Your task to perform on an android device: show emergency info Image 0: 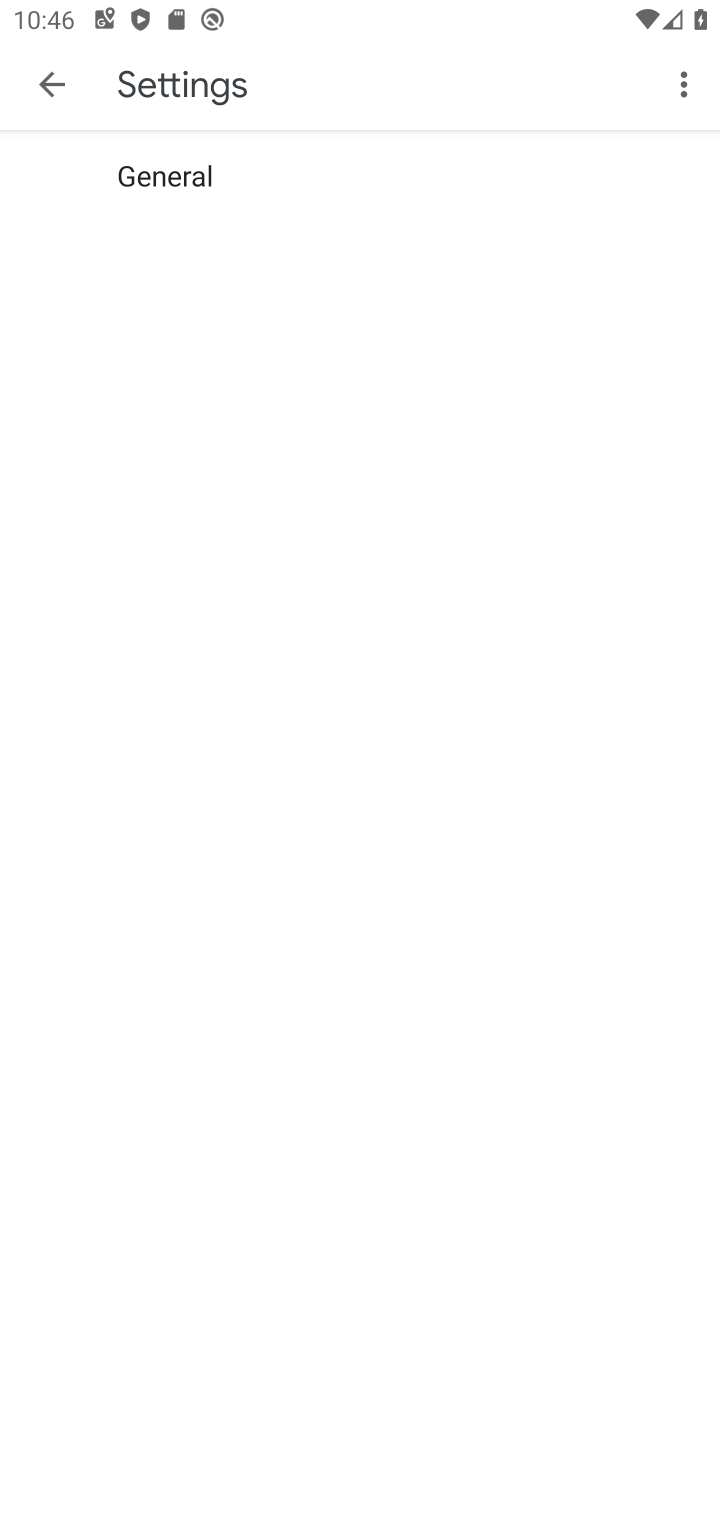
Step 0: press back button
Your task to perform on an android device: show emergency info Image 1: 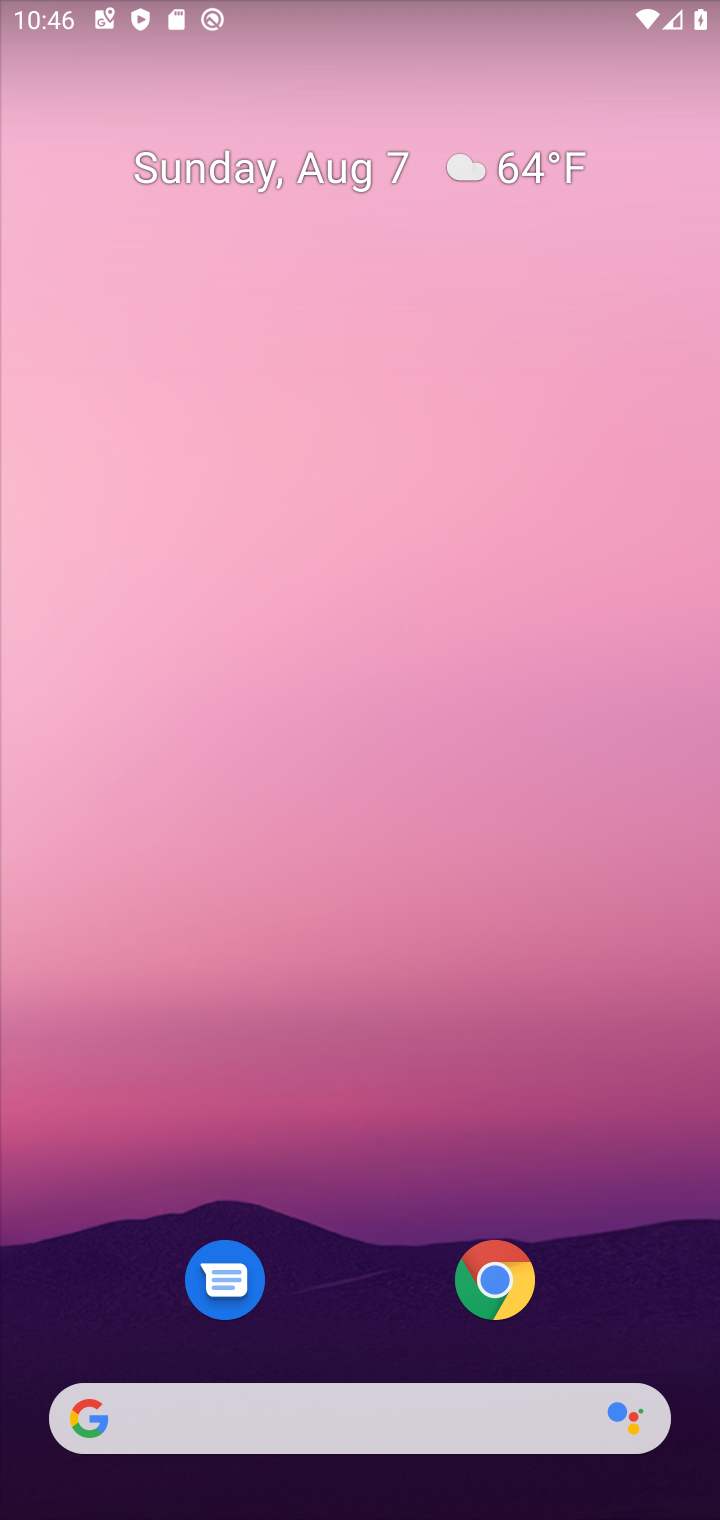
Step 1: drag from (382, 1288) to (597, 87)
Your task to perform on an android device: show emergency info Image 2: 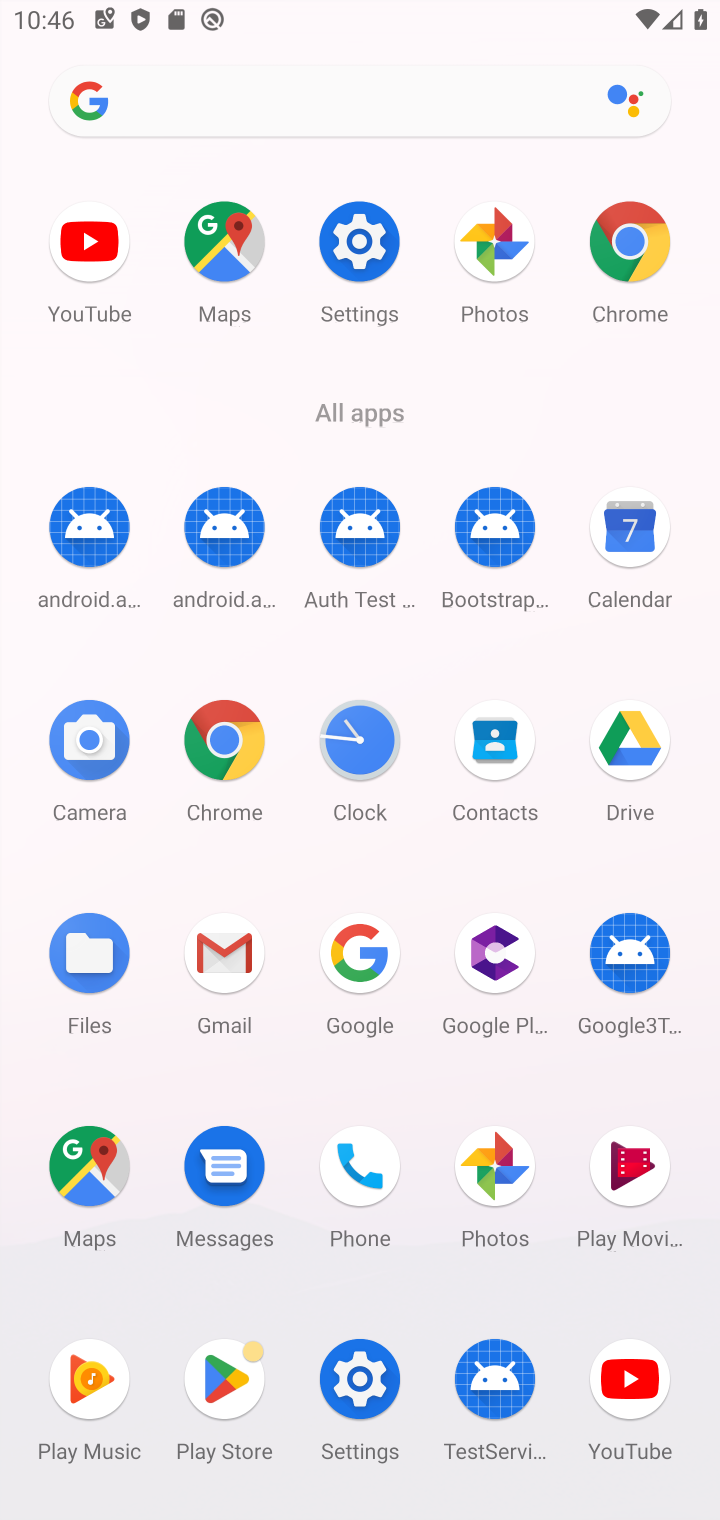
Step 2: click (361, 241)
Your task to perform on an android device: show emergency info Image 3: 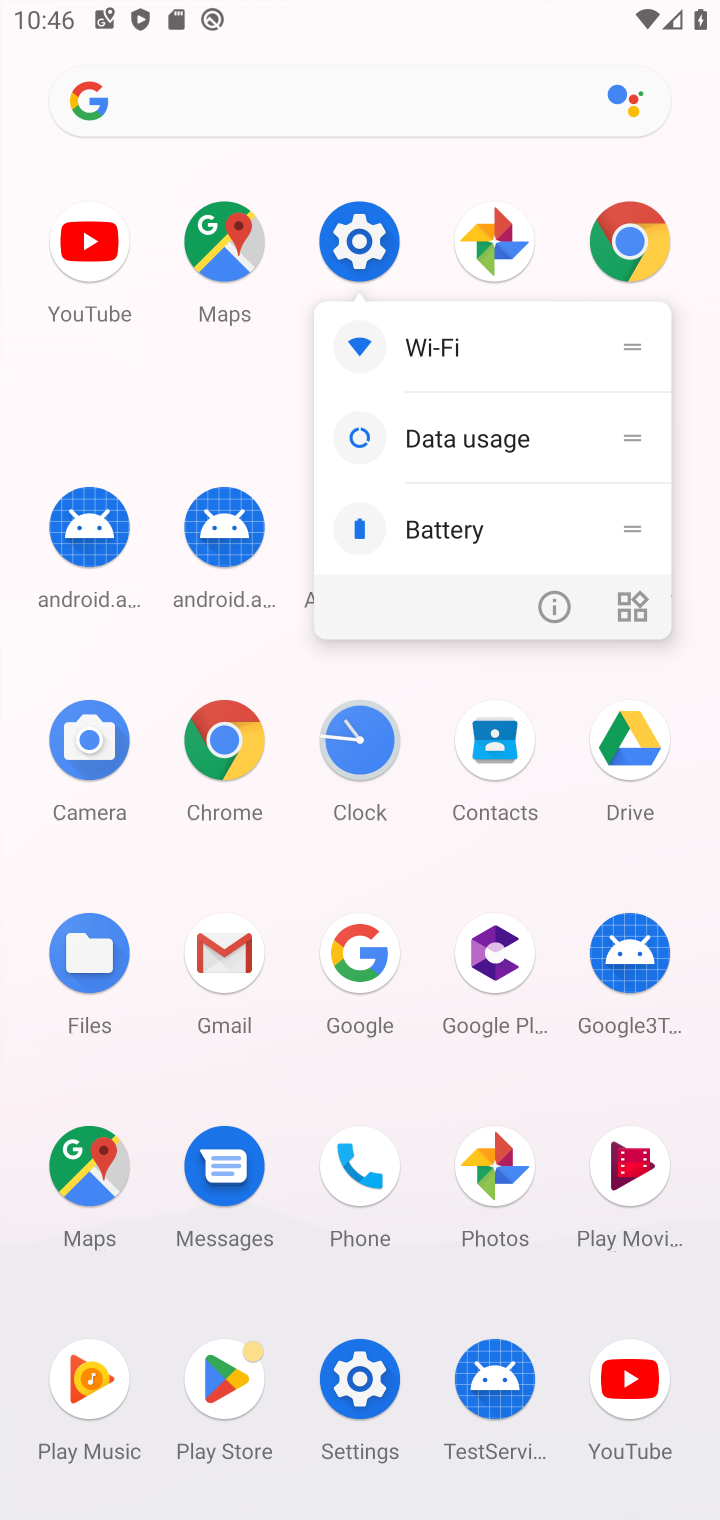
Step 3: click (380, 235)
Your task to perform on an android device: show emergency info Image 4: 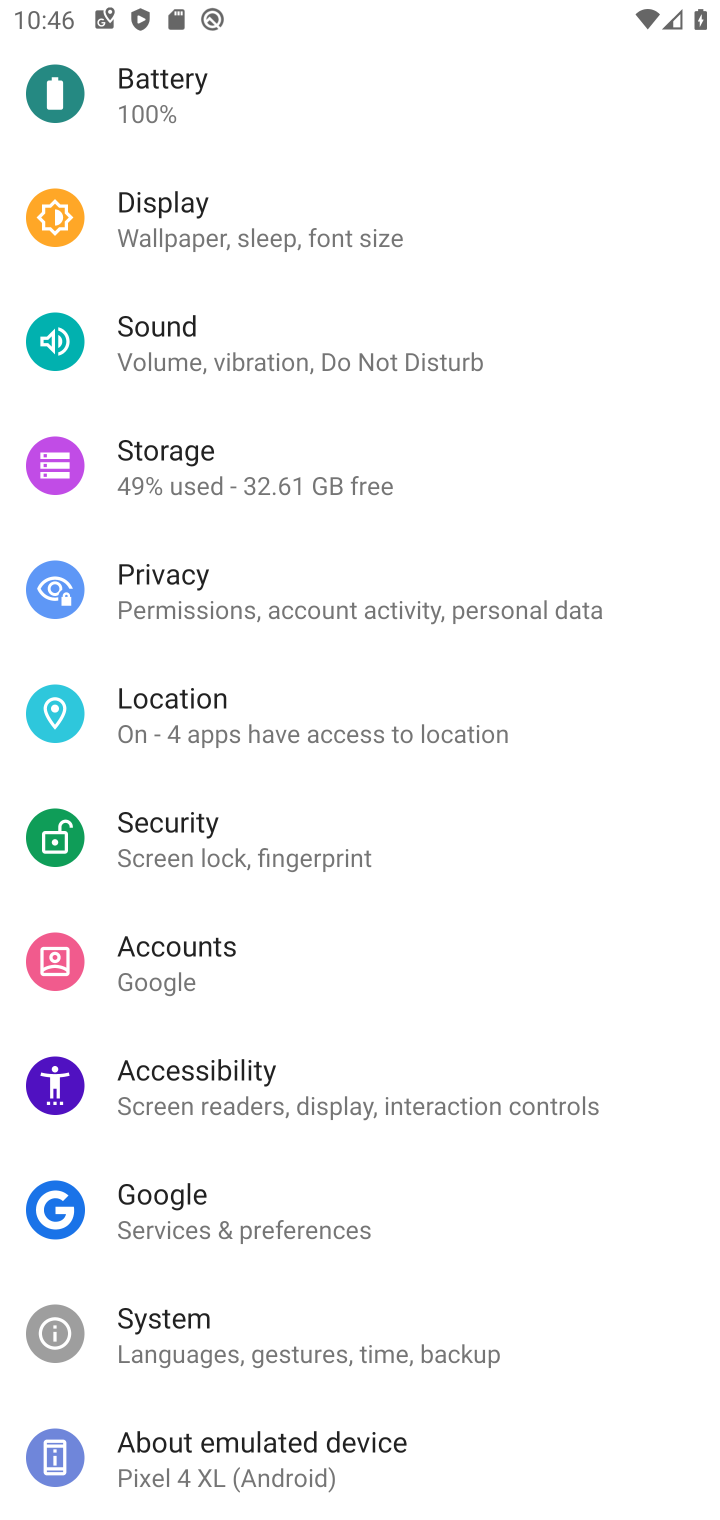
Step 4: drag from (268, 1432) to (376, 81)
Your task to perform on an android device: show emergency info Image 5: 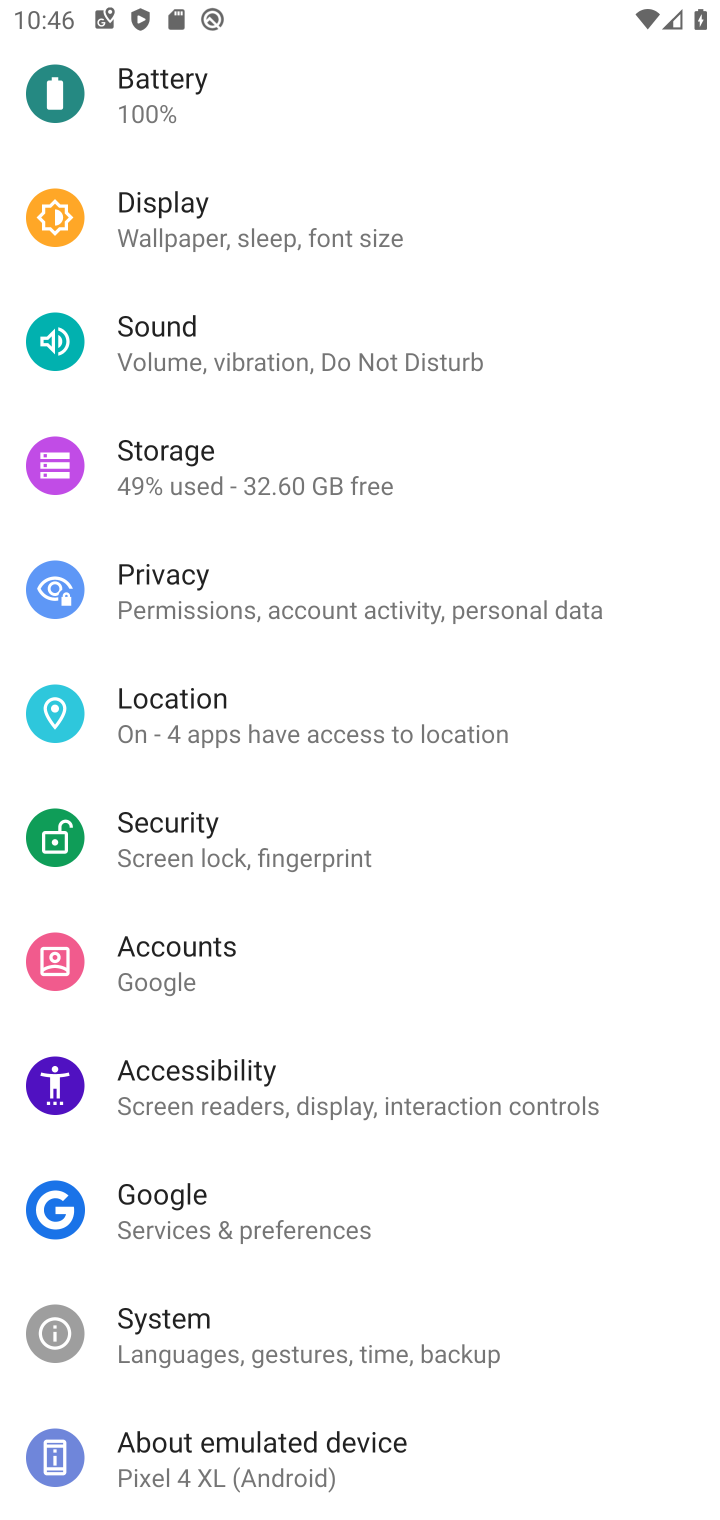
Step 5: click (243, 1460)
Your task to perform on an android device: show emergency info Image 6: 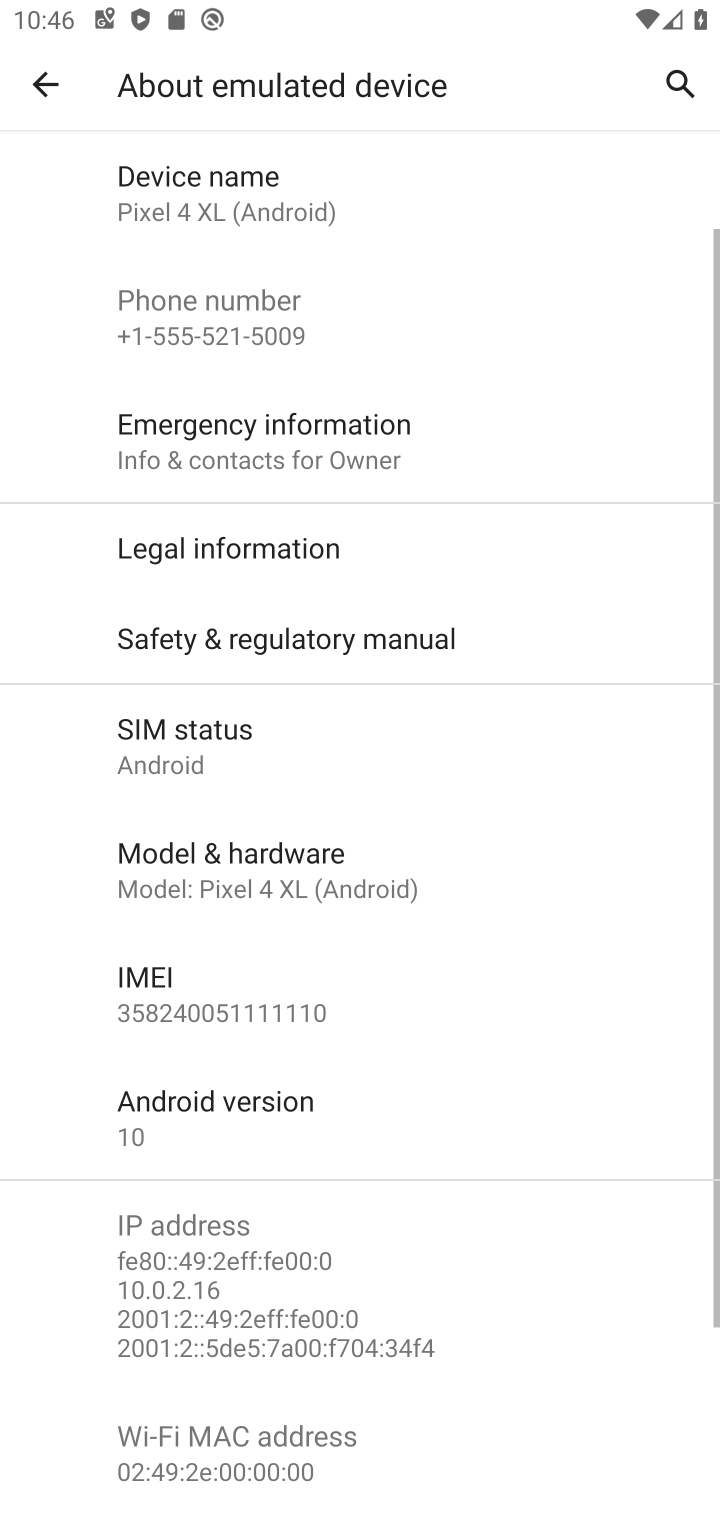
Step 6: click (288, 437)
Your task to perform on an android device: show emergency info Image 7: 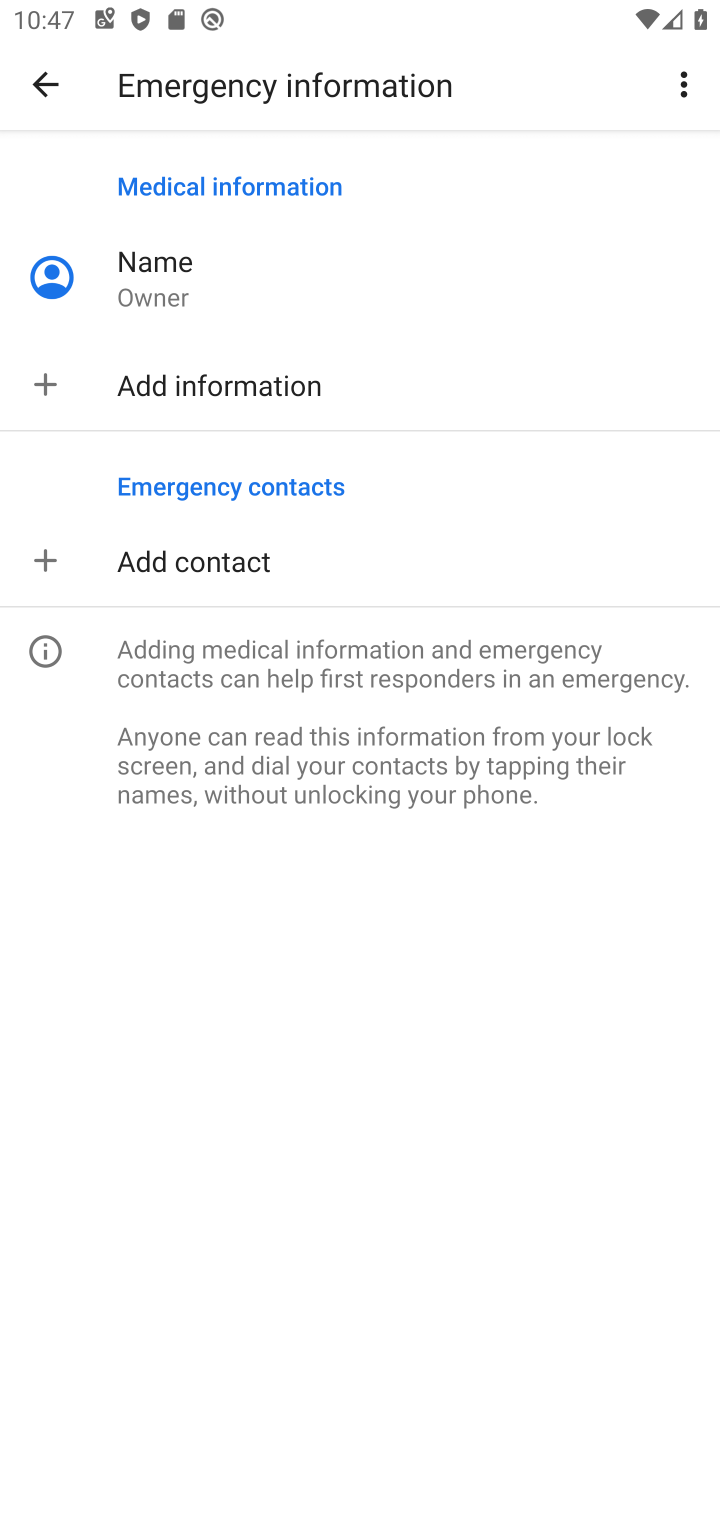
Step 7: task complete